Your task to perform on an android device: check out phone information Image 0: 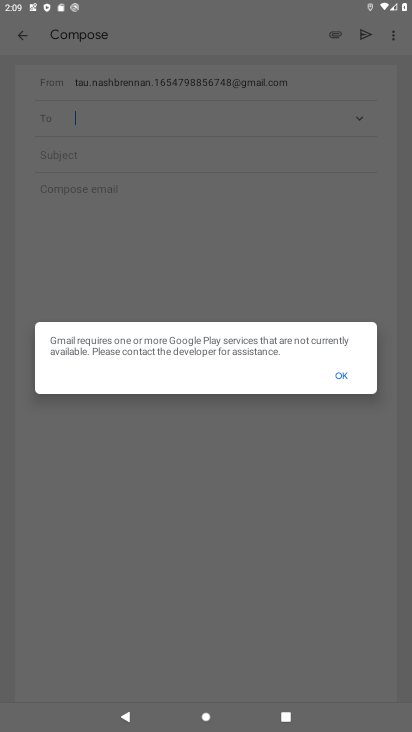
Step 0: press home button
Your task to perform on an android device: check out phone information Image 1: 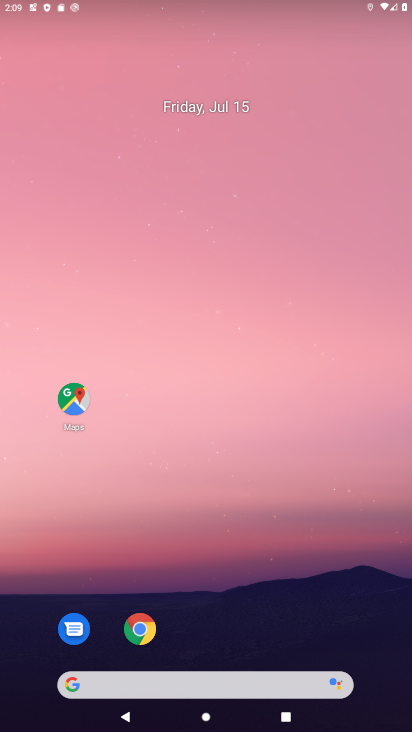
Step 1: drag from (238, 635) to (290, 70)
Your task to perform on an android device: check out phone information Image 2: 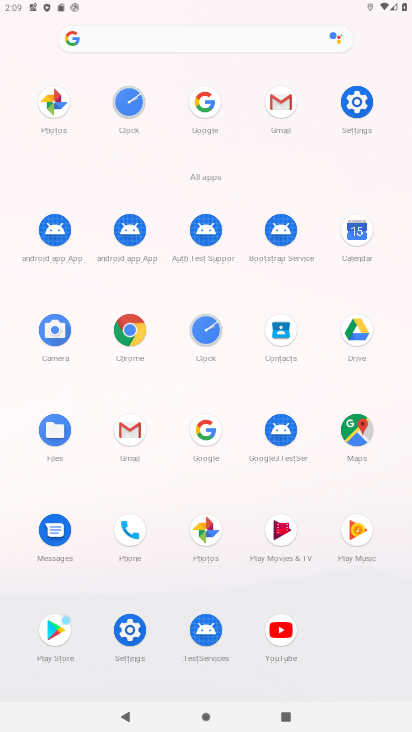
Step 2: click (356, 93)
Your task to perform on an android device: check out phone information Image 3: 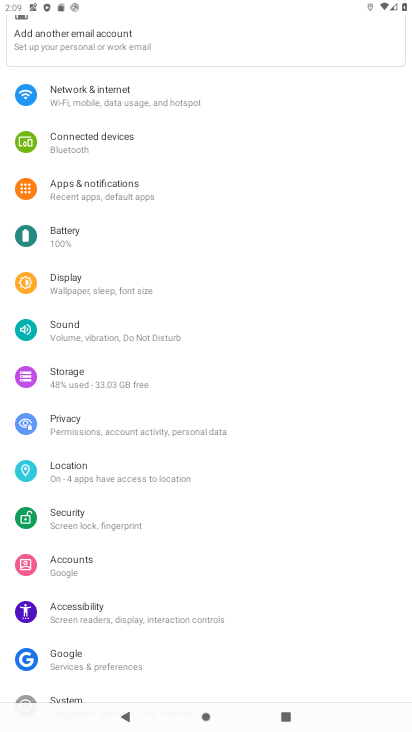
Step 3: drag from (166, 671) to (200, 140)
Your task to perform on an android device: check out phone information Image 4: 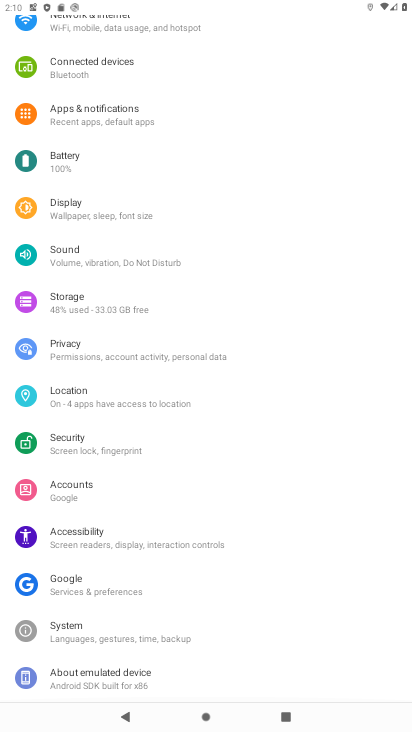
Step 4: click (130, 673)
Your task to perform on an android device: check out phone information Image 5: 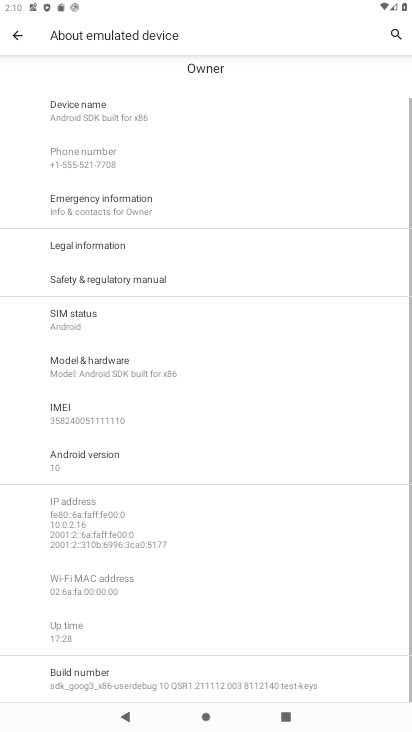
Step 5: task complete